Your task to perform on an android device: Go to ESPN.com Image 0: 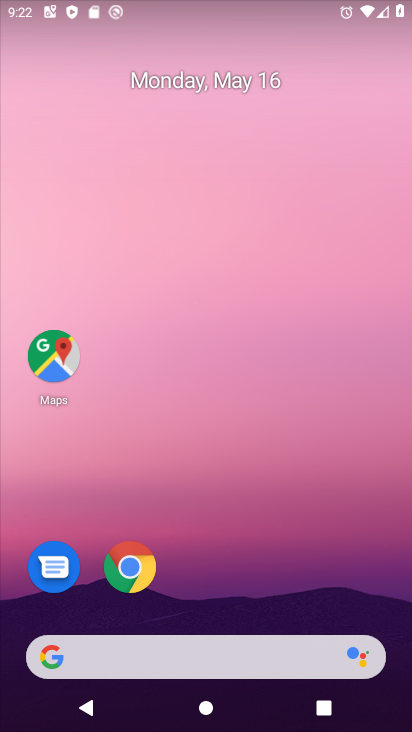
Step 0: drag from (213, 449) to (214, 191)
Your task to perform on an android device: Go to ESPN.com Image 1: 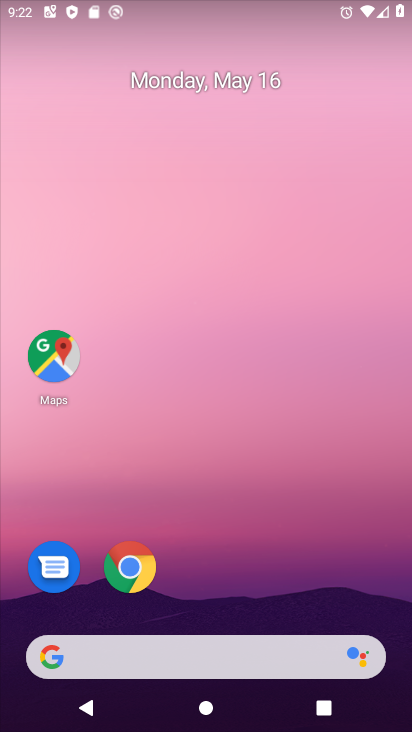
Step 1: drag from (189, 591) to (217, 237)
Your task to perform on an android device: Go to ESPN.com Image 2: 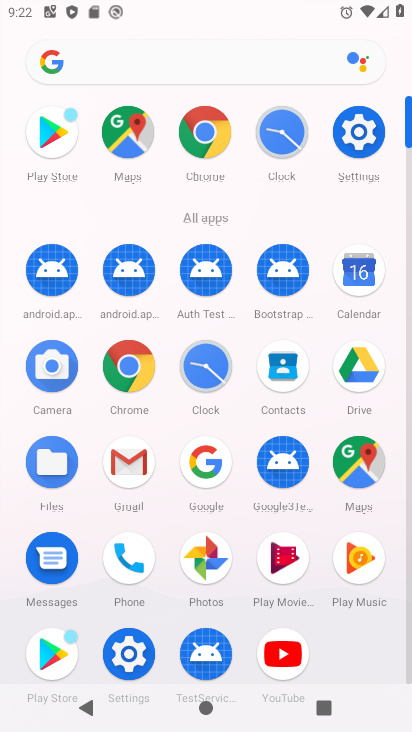
Step 2: click (195, 140)
Your task to perform on an android device: Go to ESPN.com Image 3: 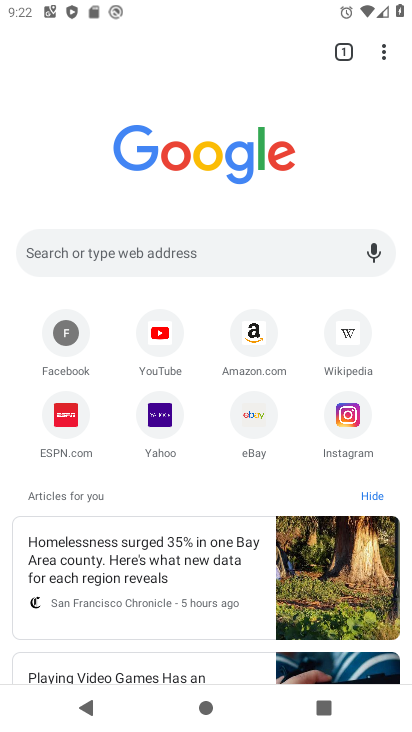
Step 3: click (66, 406)
Your task to perform on an android device: Go to ESPN.com Image 4: 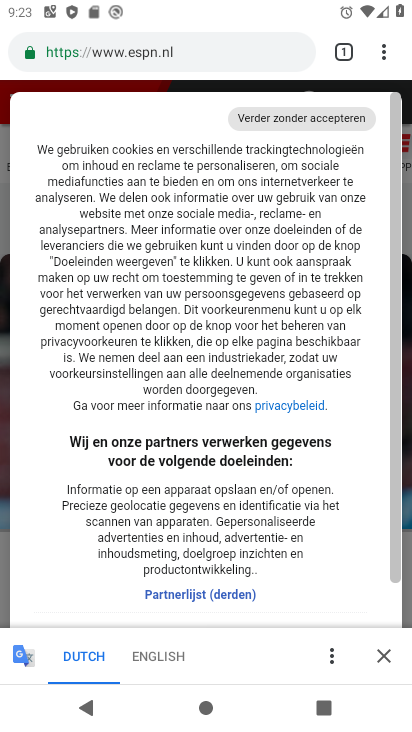
Step 4: click (380, 655)
Your task to perform on an android device: Go to ESPN.com Image 5: 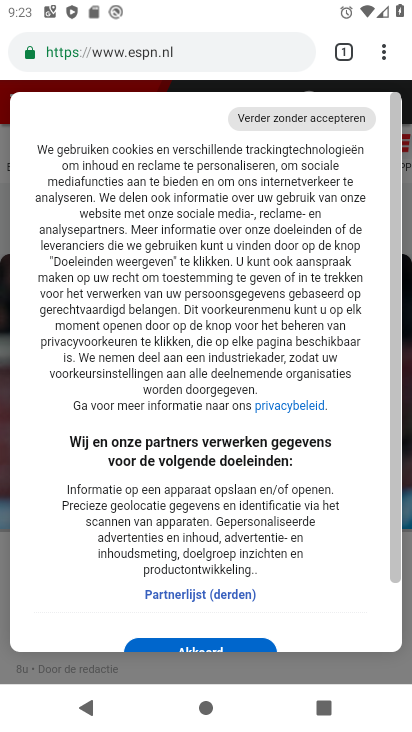
Step 5: task complete